Your task to perform on an android device: Go to network settings Image 0: 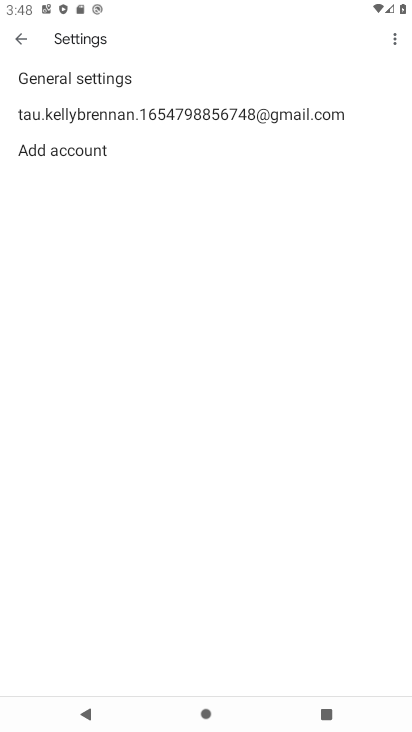
Step 0: press home button
Your task to perform on an android device: Go to network settings Image 1: 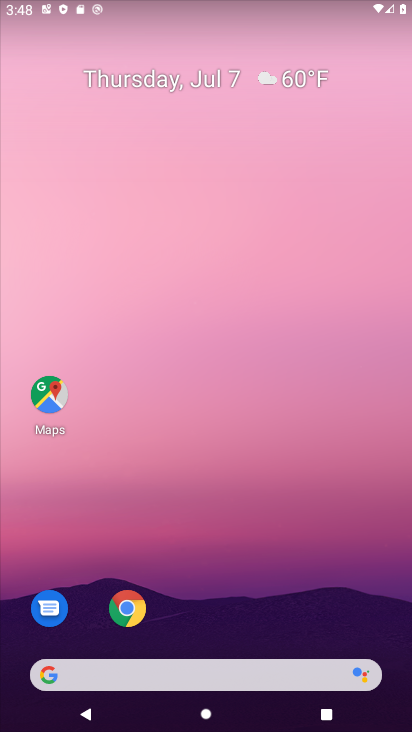
Step 1: drag from (207, 663) to (200, 122)
Your task to perform on an android device: Go to network settings Image 2: 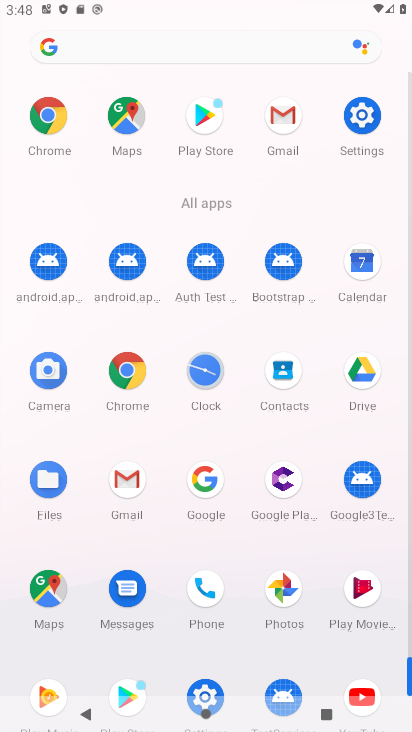
Step 2: click (356, 133)
Your task to perform on an android device: Go to network settings Image 3: 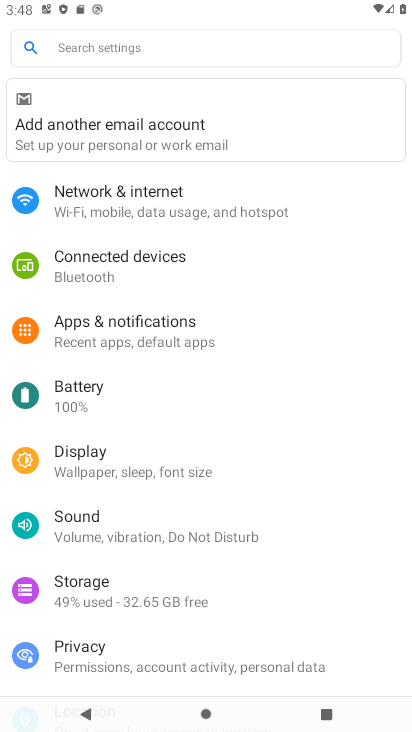
Step 3: click (137, 194)
Your task to perform on an android device: Go to network settings Image 4: 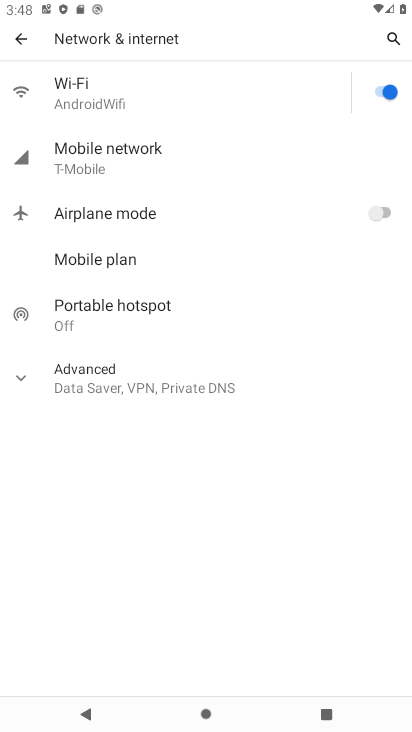
Step 4: task complete